Your task to perform on an android device: open wifi settings Image 0: 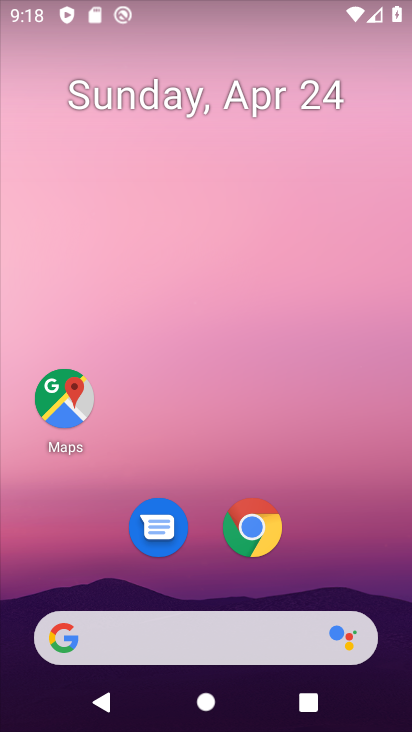
Step 0: drag from (272, 7) to (197, 551)
Your task to perform on an android device: open wifi settings Image 1: 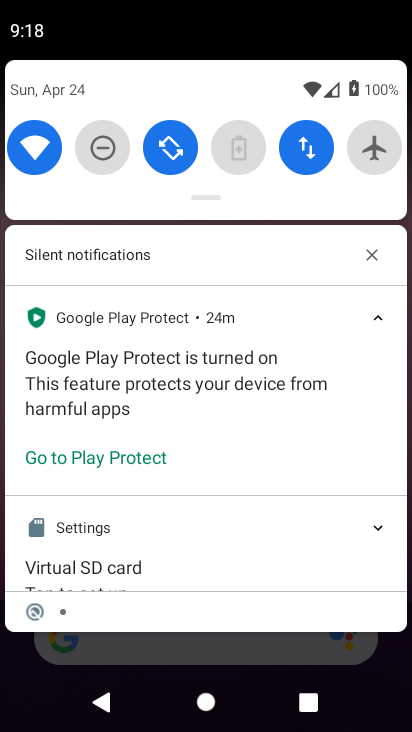
Step 1: click (38, 159)
Your task to perform on an android device: open wifi settings Image 2: 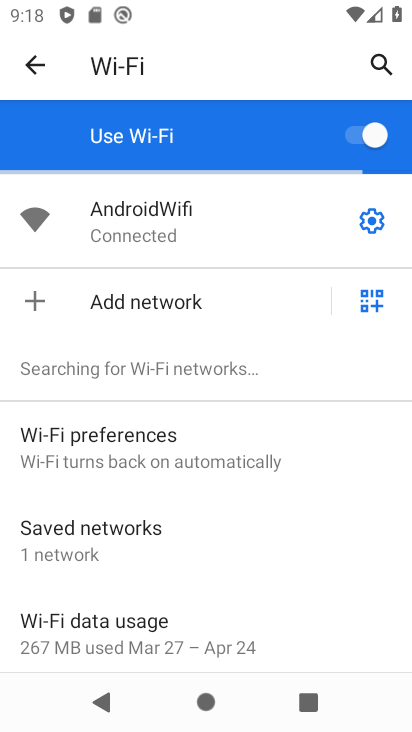
Step 2: task complete